Your task to perform on an android device: When is my next meeting? Image 0: 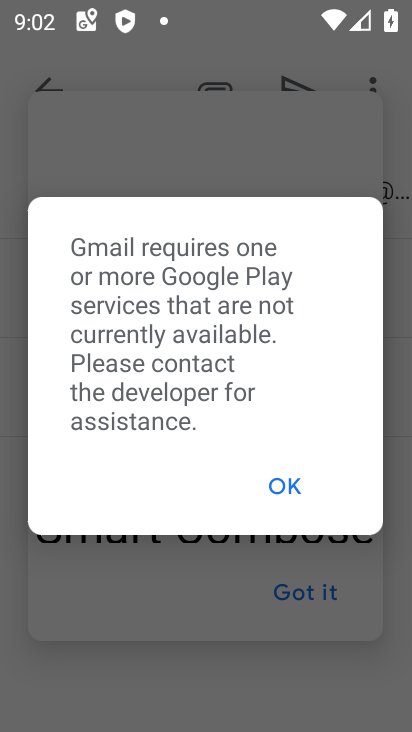
Step 0: press home button
Your task to perform on an android device: When is my next meeting? Image 1: 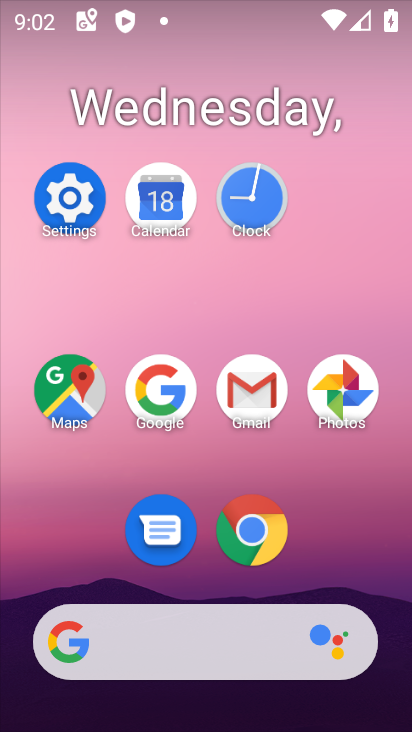
Step 1: click (178, 201)
Your task to perform on an android device: When is my next meeting? Image 2: 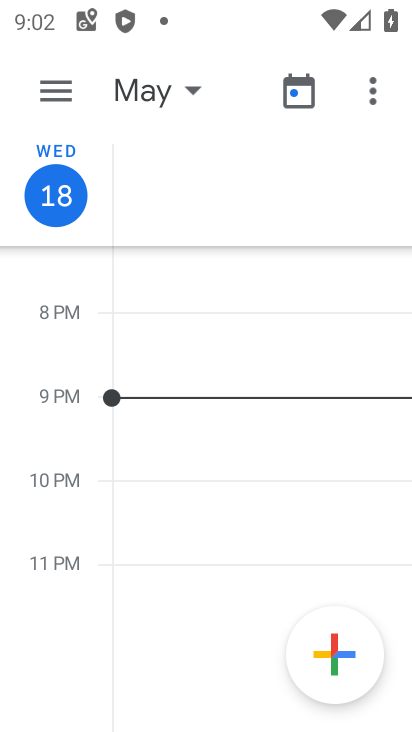
Step 2: drag from (308, 182) to (37, 187)
Your task to perform on an android device: When is my next meeting? Image 3: 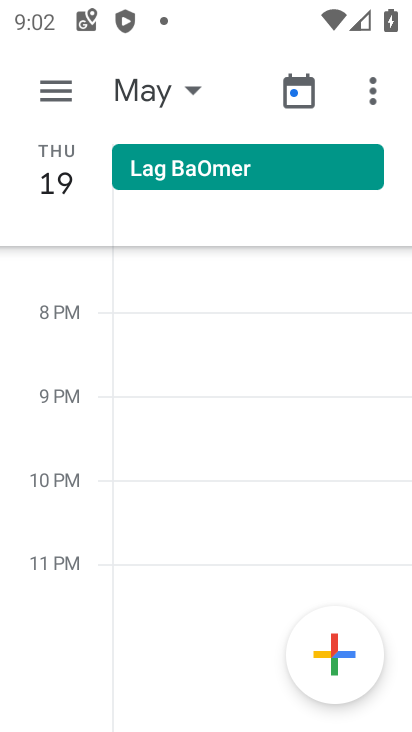
Step 3: drag from (394, 176) to (11, 202)
Your task to perform on an android device: When is my next meeting? Image 4: 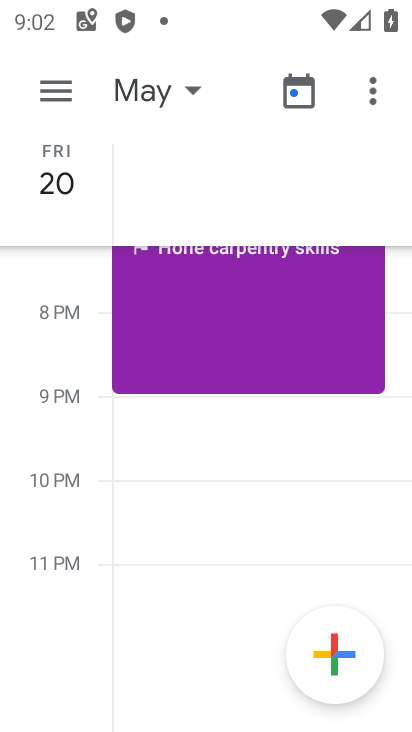
Step 4: click (66, 190)
Your task to perform on an android device: When is my next meeting? Image 5: 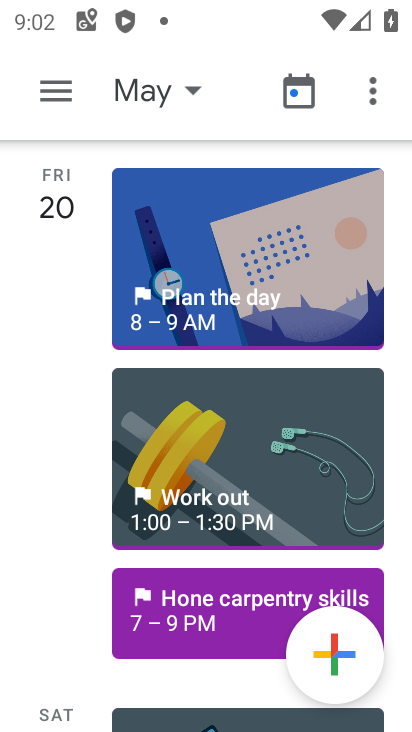
Step 5: task complete